Your task to perform on an android device: add a contact in the contacts app Image 0: 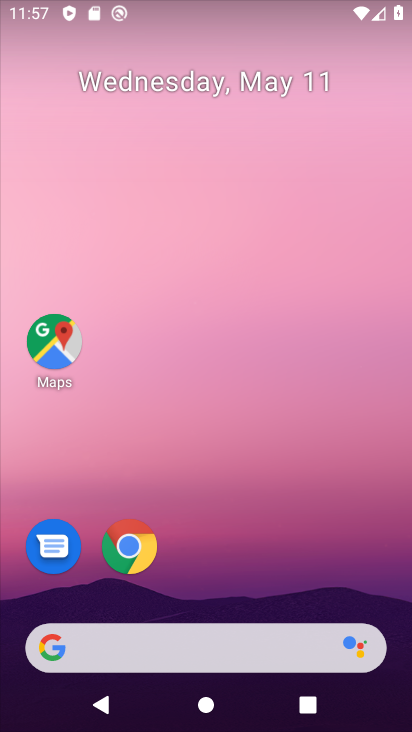
Step 0: drag from (160, 611) to (224, 78)
Your task to perform on an android device: add a contact in the contacts app Image 1: 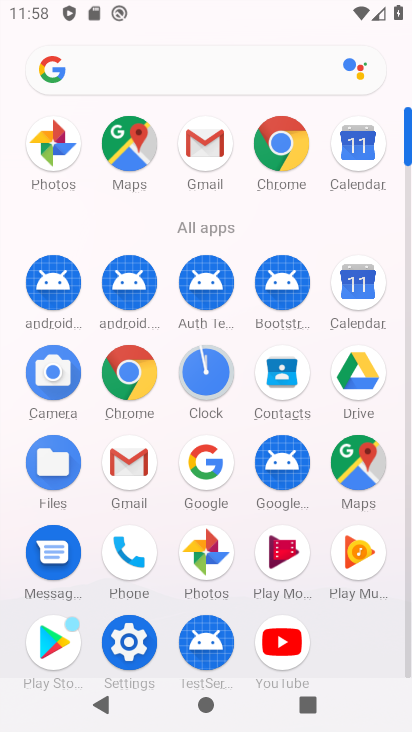
Step 1: click (286, 376)
Your task to perform on an android device: add a contact in the contacts app Image 2: 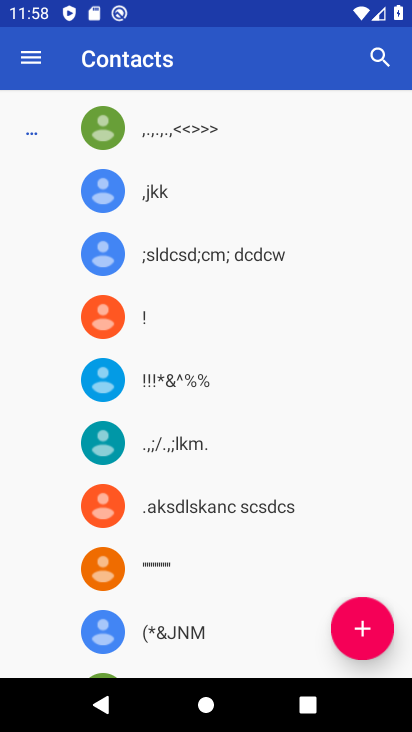
Step 2: click (369, 628)
Your task to perform on an android device: add a contact in the contacts app Image 3: 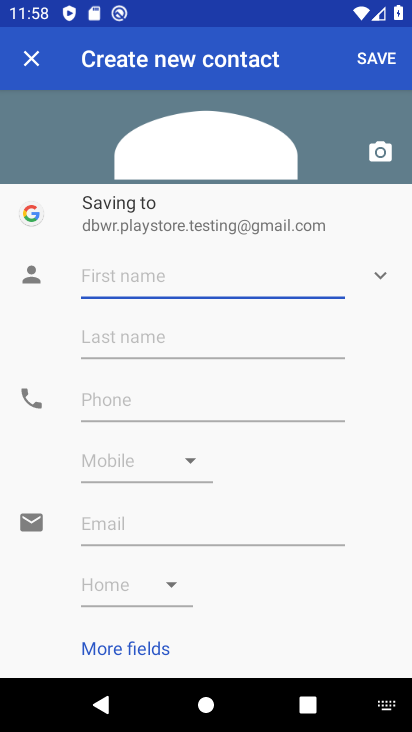
Step 3: type "WEWWWW"
Your task to perform on an android device: add a contact in the contacts app Image 4: 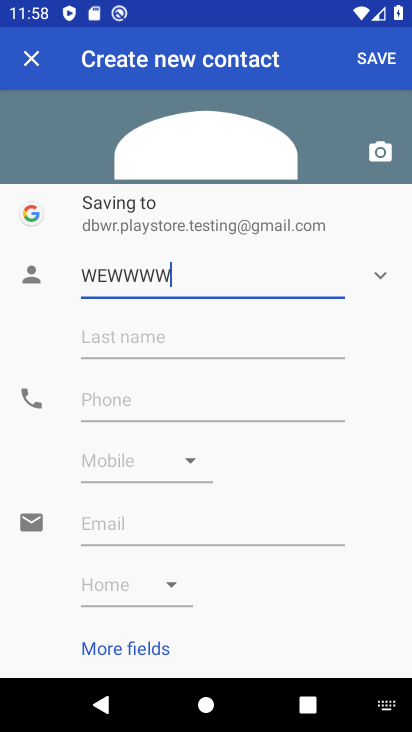
Step 4: click (184, 401)
Your task to perform on an android device: add a contact in the contacts app Image 5: 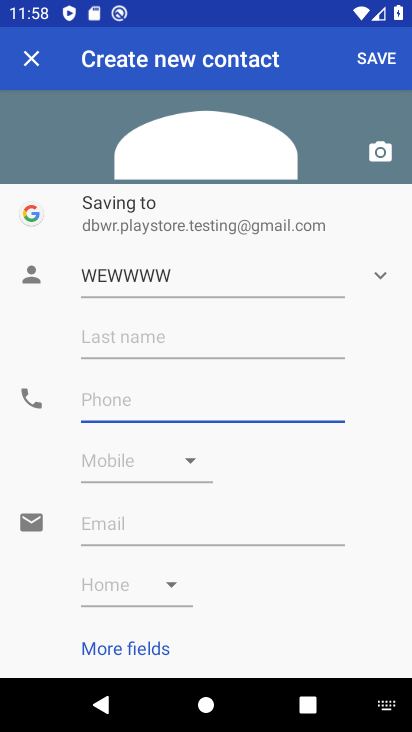
Step 5: type "29823433"
Your task to perform on an android device: add a contact in the contacts app Image 6: 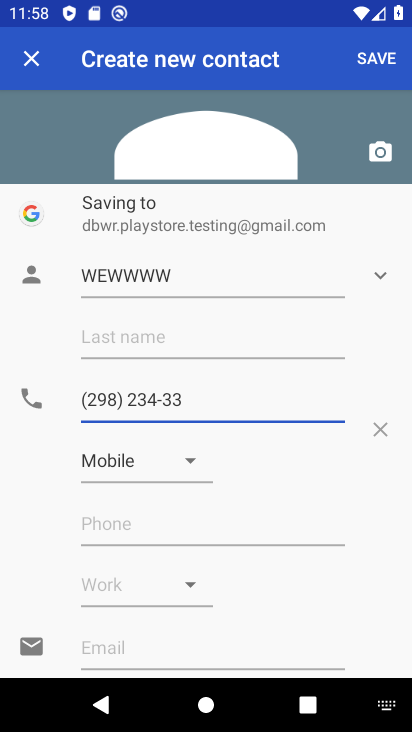
Step 6: type "12"
Your task to perform on an android device: add a contact in the contacts app Image 7: 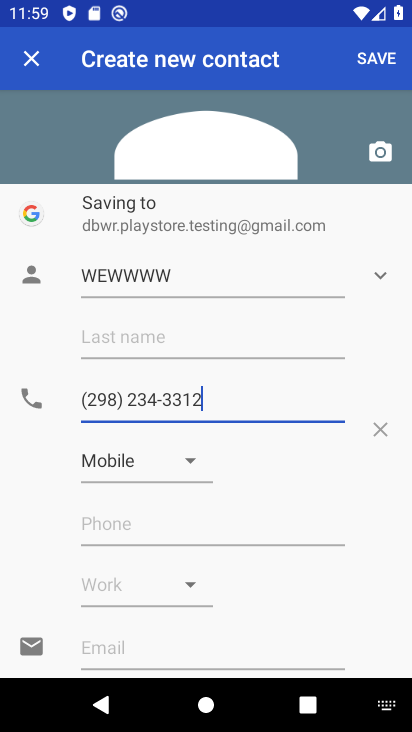
Step 7: click (383, 55)
Your task to perform on an android device: add a contact in the contacts app Image 8: 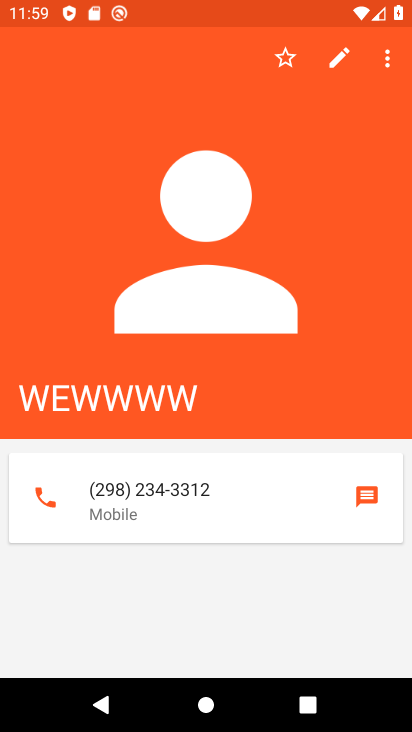
Step 8: task complete